Your task to perform on an android device: Search for the best books on Goodreads. Image 0: 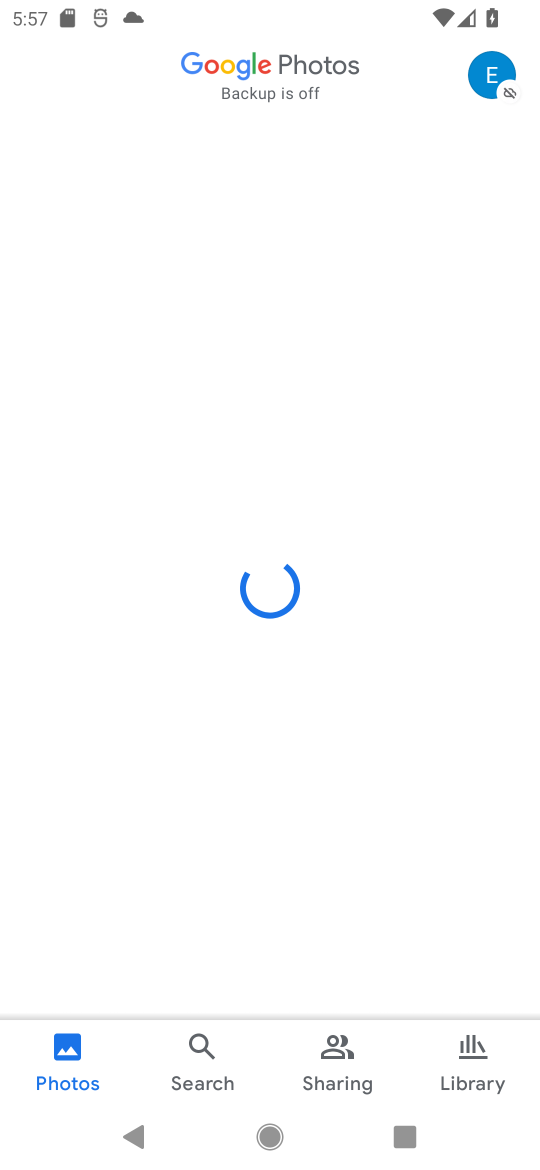
Step 0: press home button
Your task to perform on an android device: Search for the best books on Goodreads. Image 1: 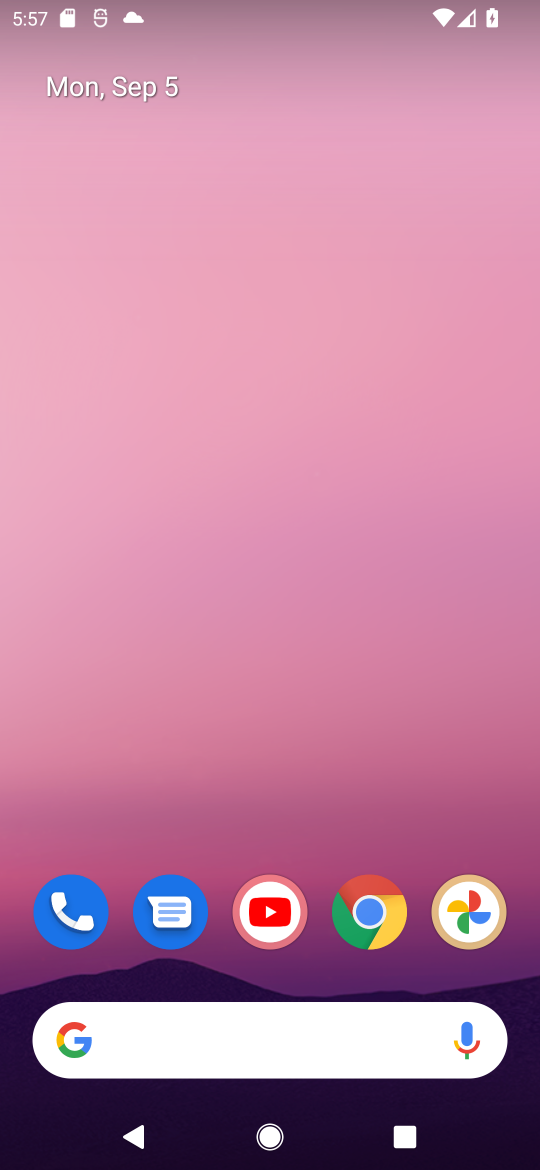
Step 1: click (372, 918)
Your task to perform on an android device: Search for the best books on Goodreads. Image 2: 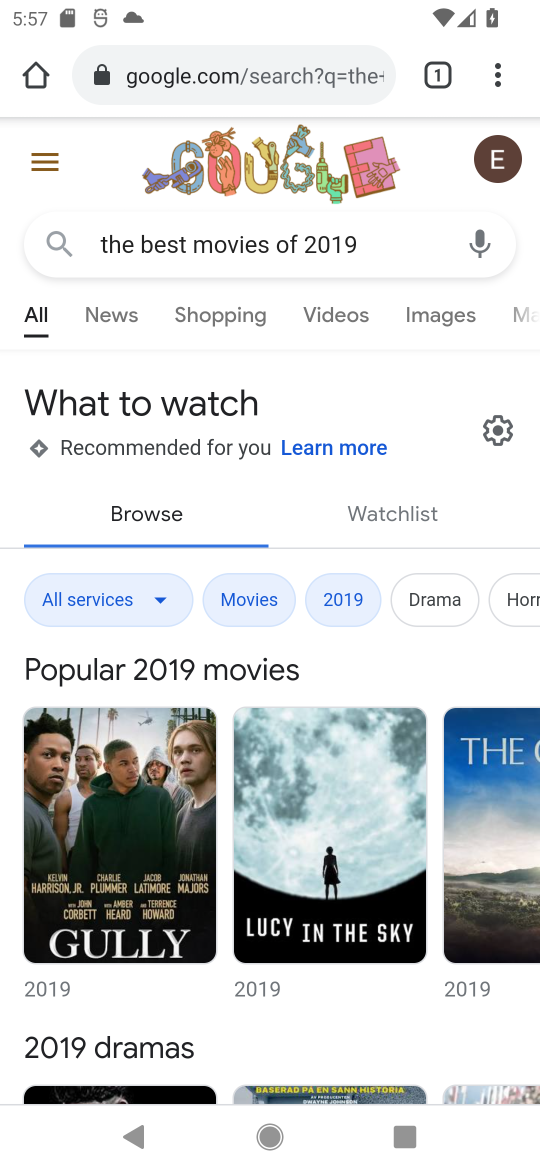
Step 2: click (341, 77)
Your task to perform on an android device: Search for the best books on Goodreads. Image 3: 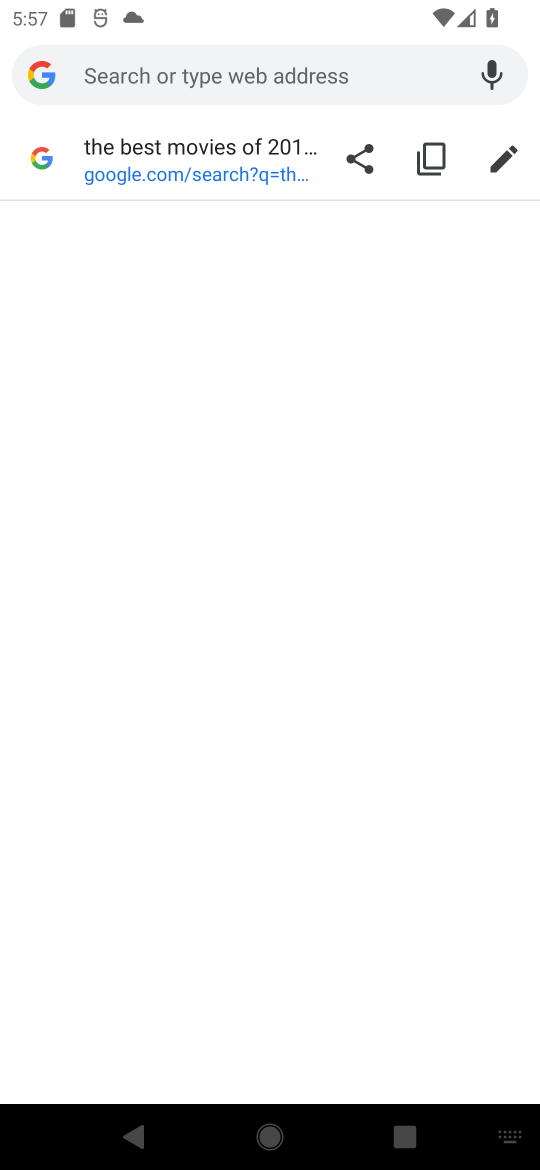
Step 3: type "Goodreads"
Your task to perform on an android device: Search for the best books on Goodreads. Image 4: 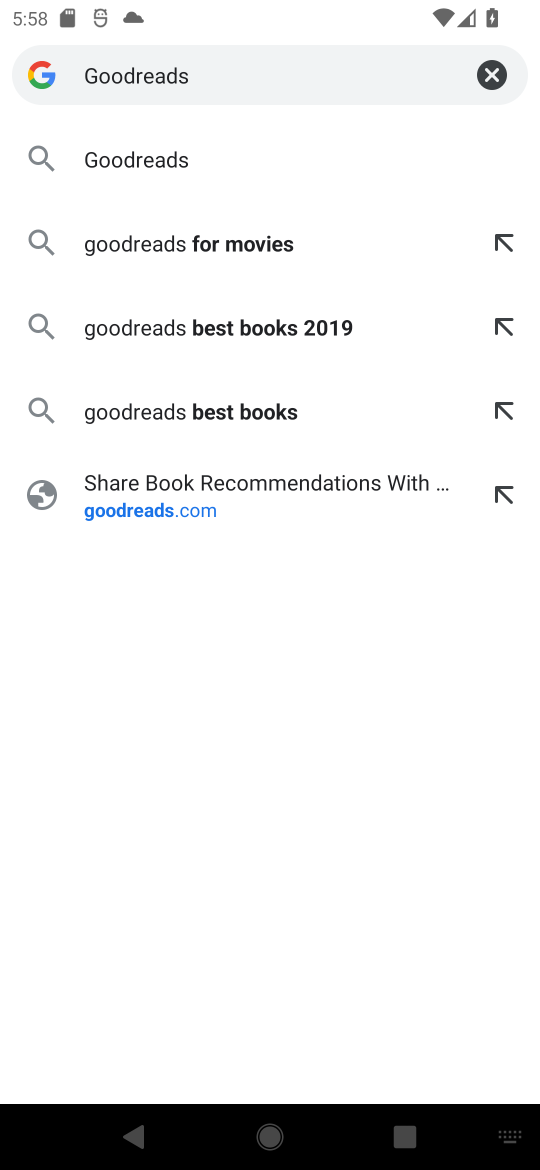
Step 4: click (217, 194)
Your task to perform on an android device: Search for the best books on Goodreads. Image 5: 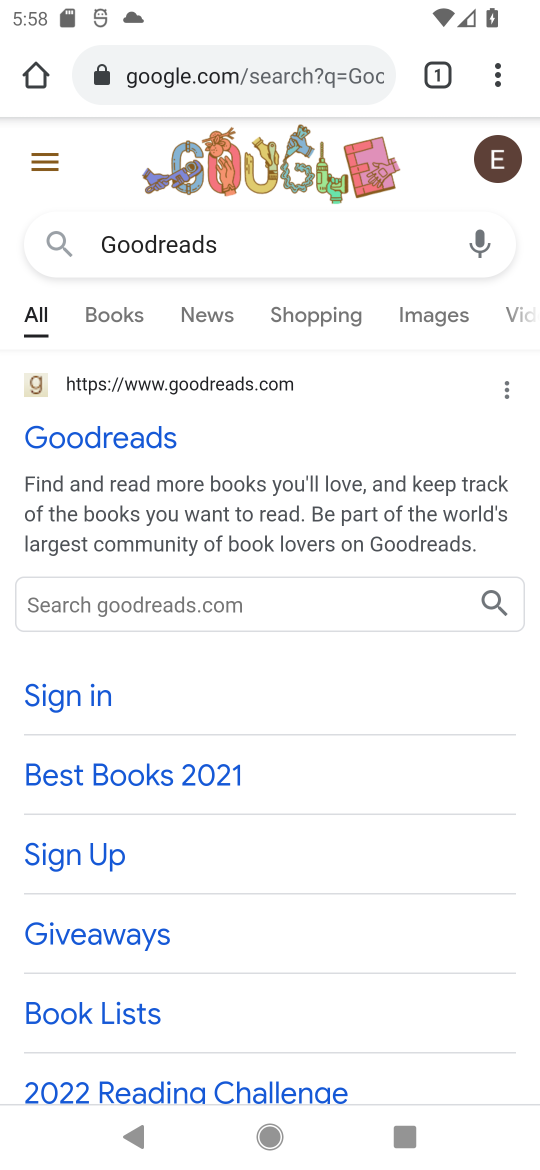
Step 5: click (129, 436)
Your task to perform on an android device: Search for the best books on Goodreads. Image 6: 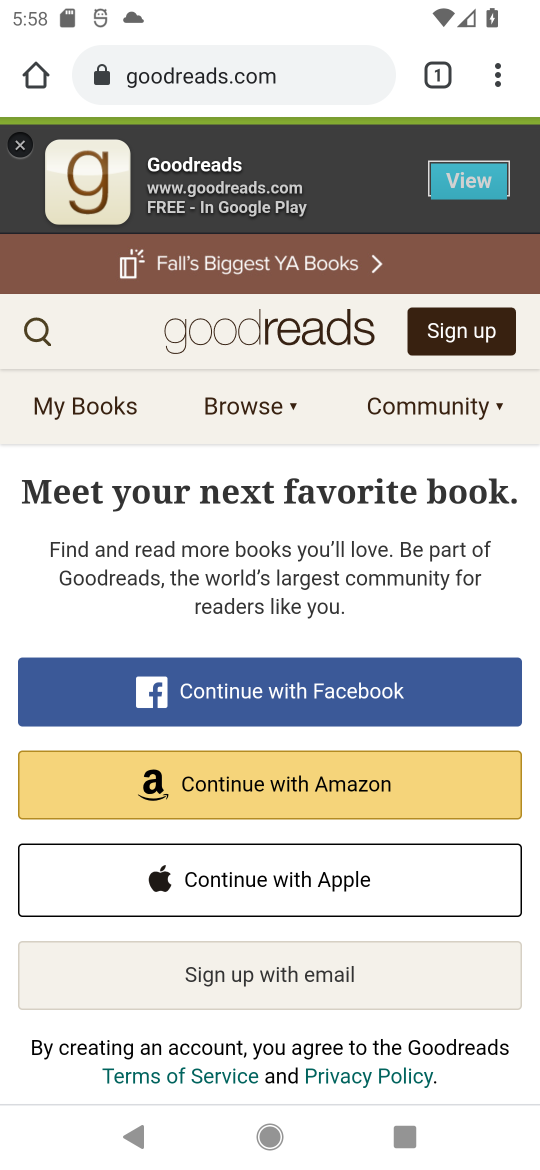
Step 6: click (37, 331)
Your task to perform on an android device: Search for the best books on Goodreads. Image 7: 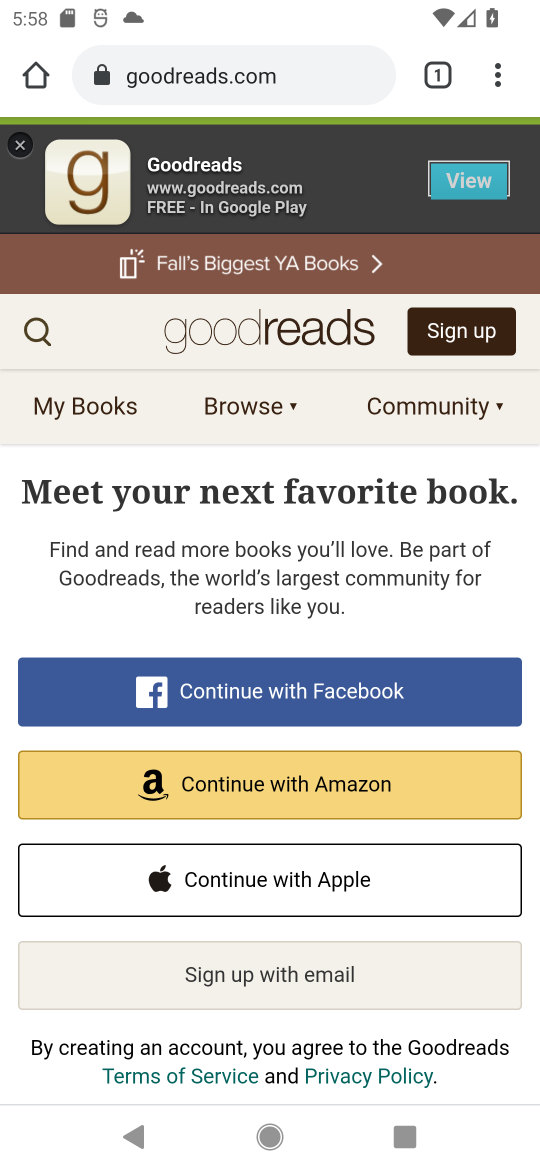
Step 7: click (45, 326)
Your task to perform on an android device: Search for the best books on Goodreads. Image 8: 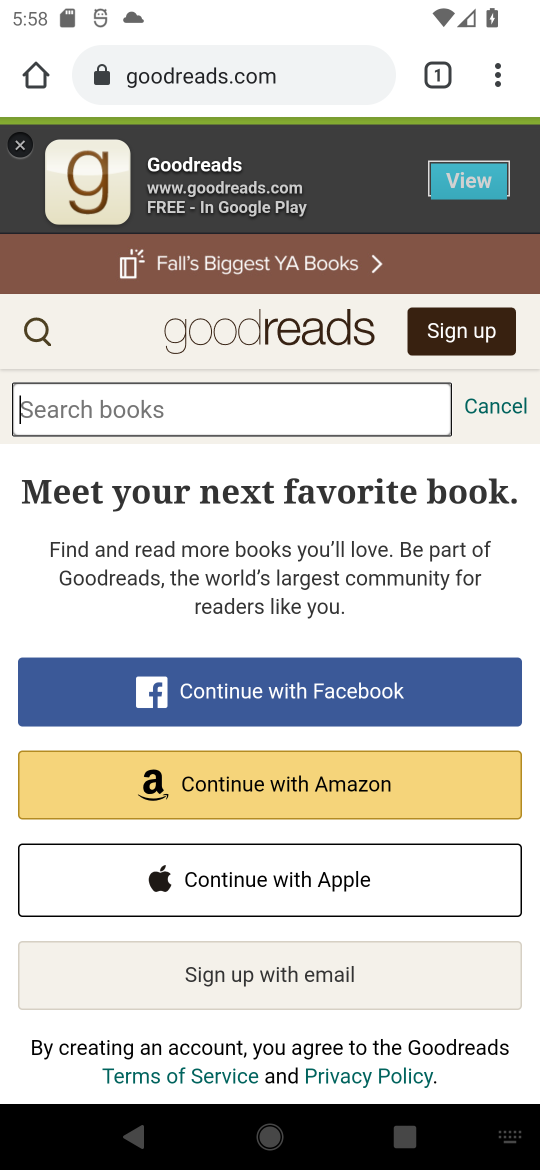
Step 8: type "the best books"
Your task to perform on an android device: Search for the best books on Goodreads. Image 9: 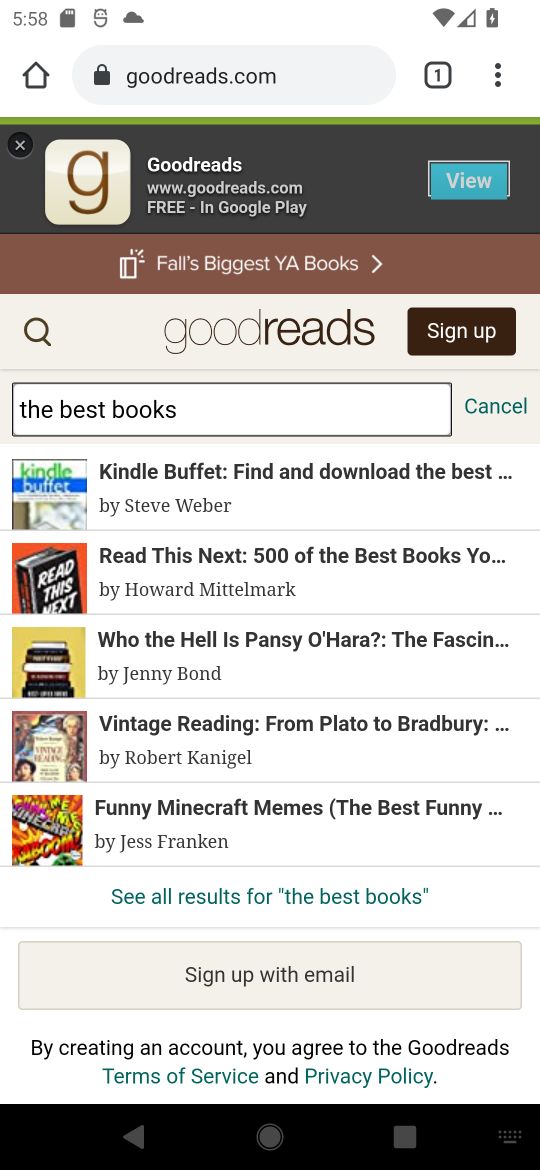
Step 9: task complete